Your task to perform on an android device: Is it going to rain tomorrow? Image 0: 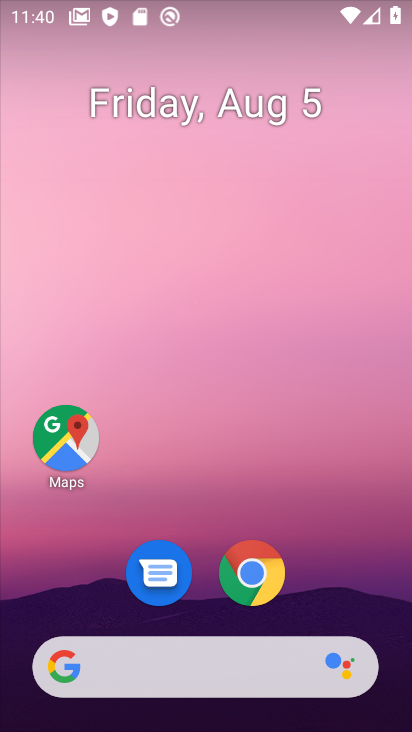
Step 0: click (266, 664)
Your task to perform on an android device: Is it going to rain tomorrow? Image 1: 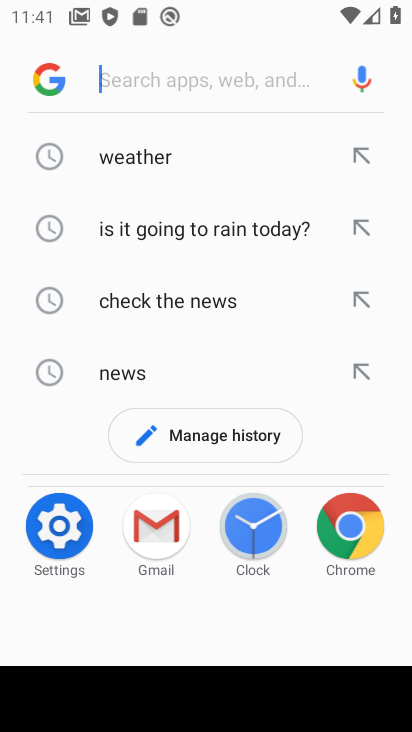
Step 1: type "Is it going to rain tomorrow?"
Your task to perform on an android device: Is it going to rain tomorrow? Image 2: 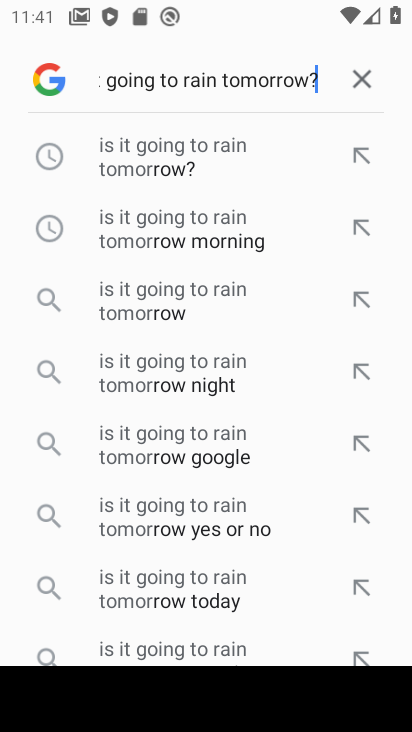
Step 2: press enter
Your task to perform on an android device: Is it going to rain tomorrow? Image 3: 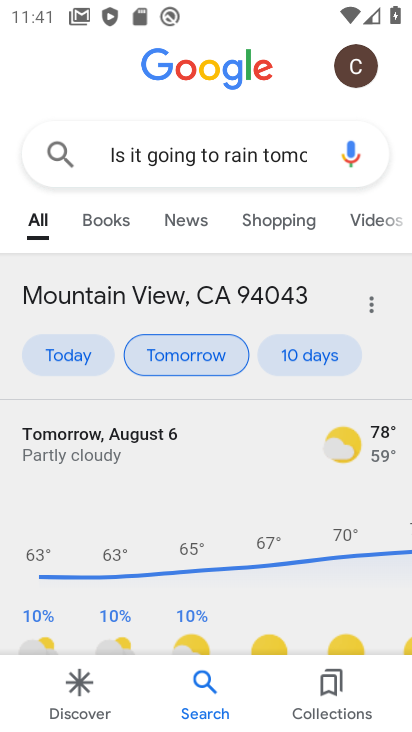
Step 3: task complete